Your task to perform on an android device: change the clock style Image 0: 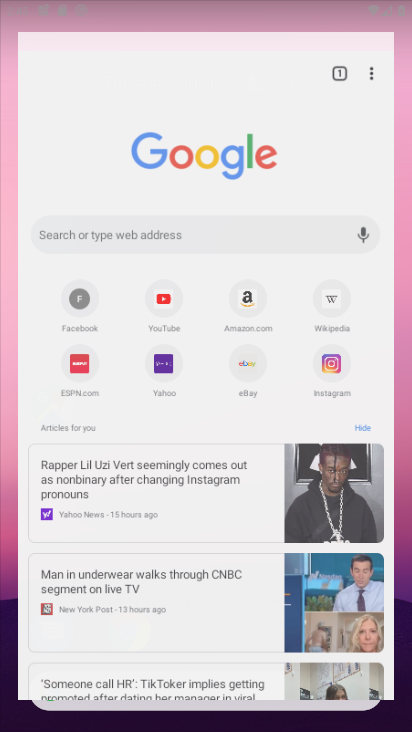
Step 0: drag from (274, 551) to (201, 215)
Your task to perform on an android device: change the clock style Image 1: 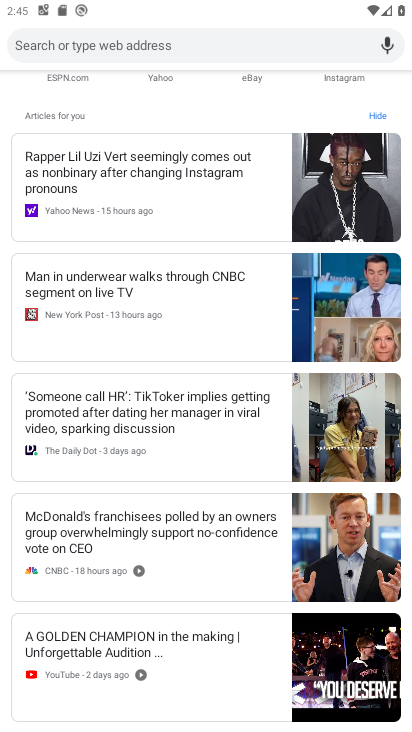
Step 1: press home button
Your task to perform on an android device: change the clock style Image 2: 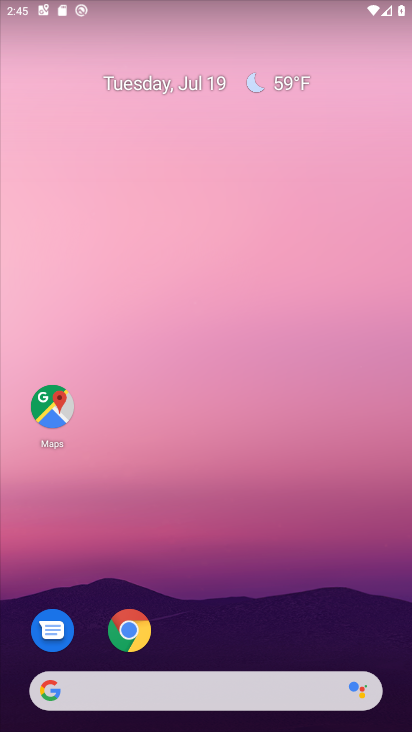
Step 2: drag from (224, 502) to (153, 33)
Your task to perform on an android device: change the clock style Image 3: 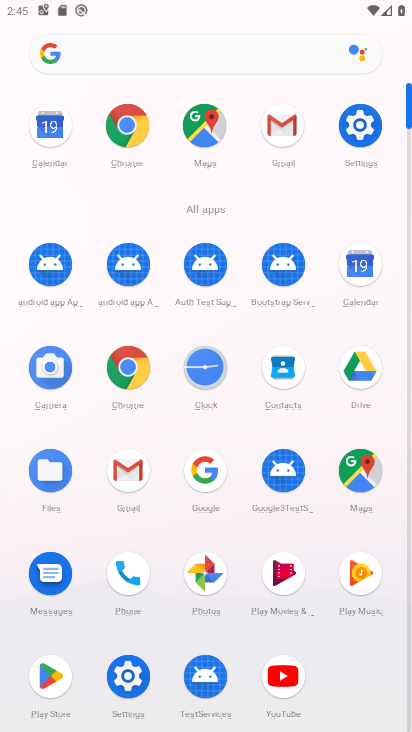
Step 3: click (205, 358)
Your task to perform on an android device: change the clock style Image 4: 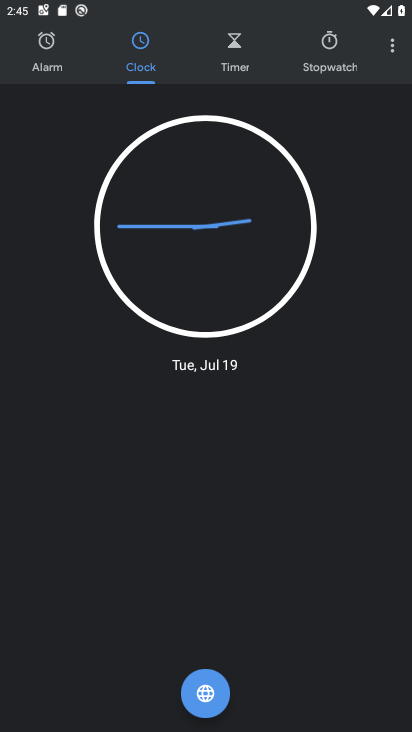
Step 4: click (391, 51)
Your task to perform on an android device: change the clock style Image 5: 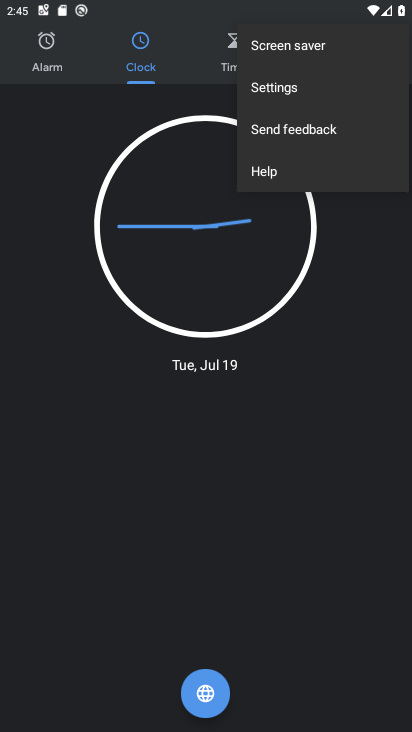
Step 5: click (289, 85)
Your task to perform on an android device: change the clock style Image 6: 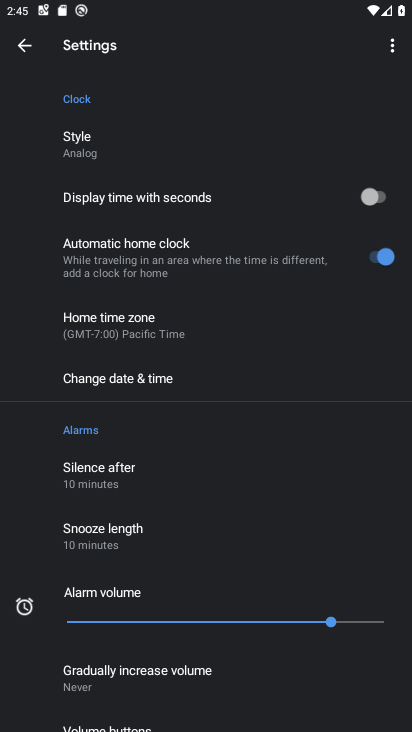
Step 6: click (88, 145)
Your task to perform on an android device: change the clock style Image 7: 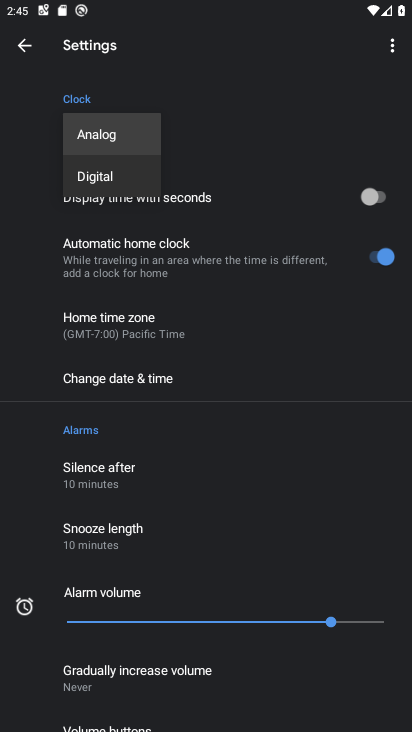
Step 7: click (98, 186)
Your task to perform on an android device: change the clock style Image 8: 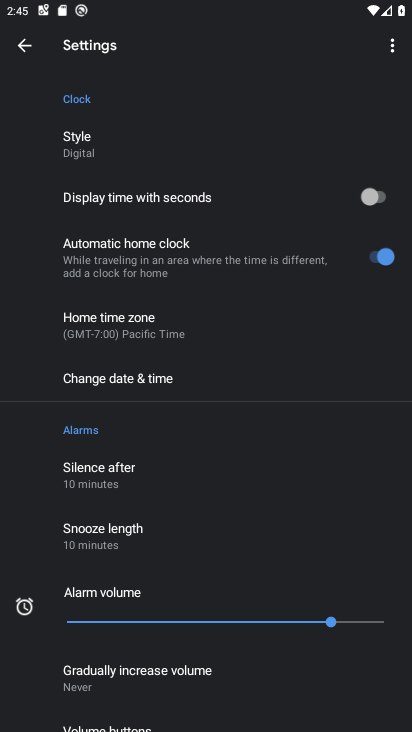
Step 8: task complete